Your task to perform on an android device: stop showing notifications on the lock screen Image 0: 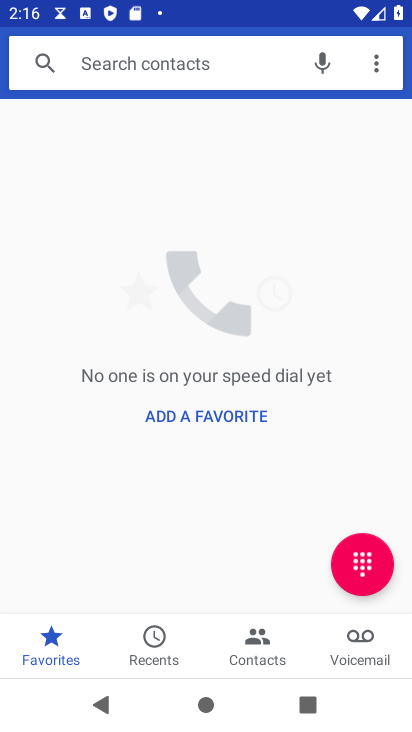
Step 0: press home button
Your task to perform on an android device: stop showing notifications on the lock screen Image 1: 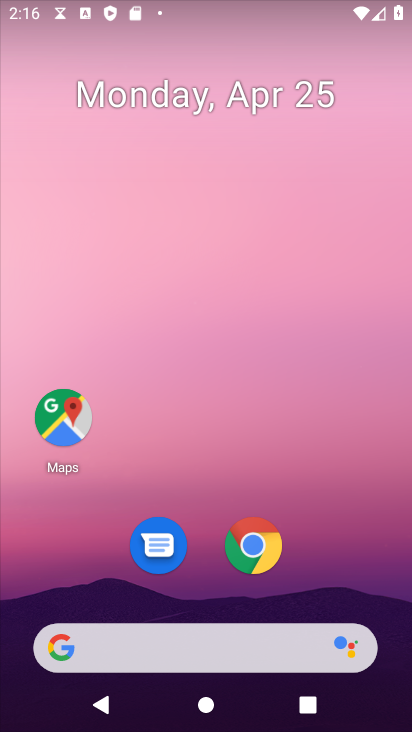
Step 1: drag from (260, 633) to (254, 202)
Your task to perform on an android device: stop showing notifications on the lock screen Image 2: 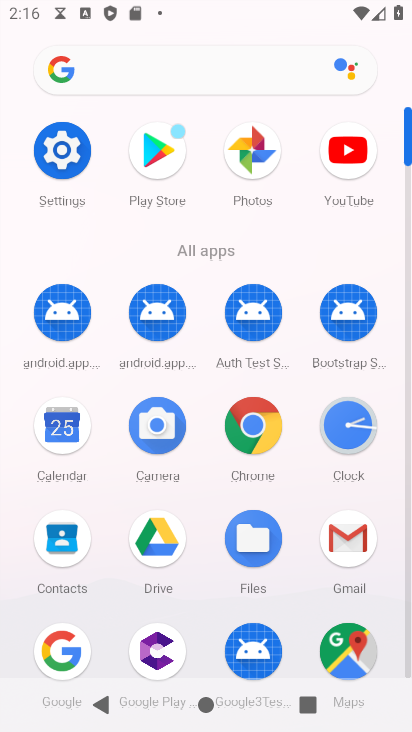
Step 2: click (67, 174)
Your task to perform on an android device: stop showing notifications on the lock screen Image 3: 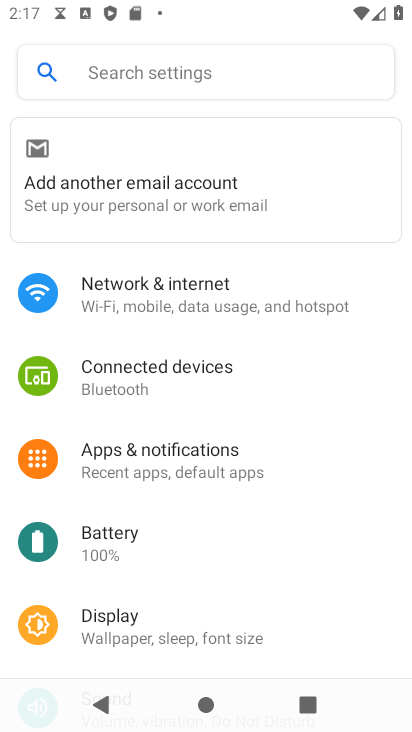
Step 3: click (188, 469)
Your task to perform on an android device: stop showing notifications on the lock screen Image 4: 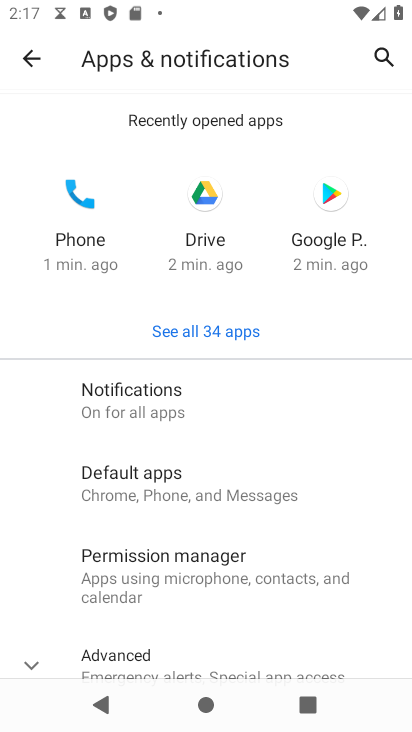
Step 4: click (127, 394)
Your task to perform on an android device: stop showing notifications on the lock screen Image 5: 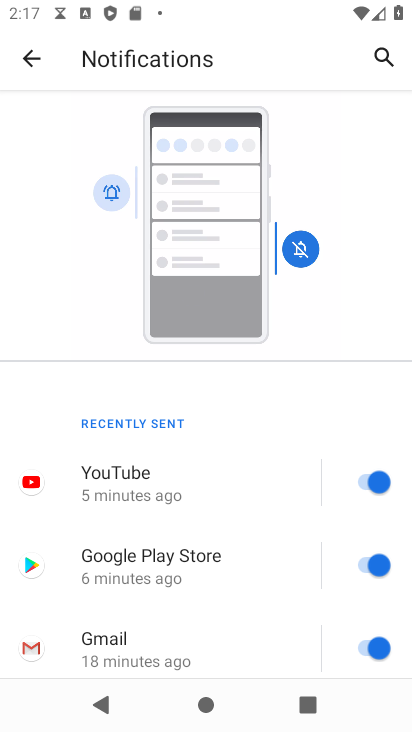
Step 5: drag from (83, 621) to (94, 117)
Your task to perform on an android device: stop showing notifications on the lock screen Image 6: 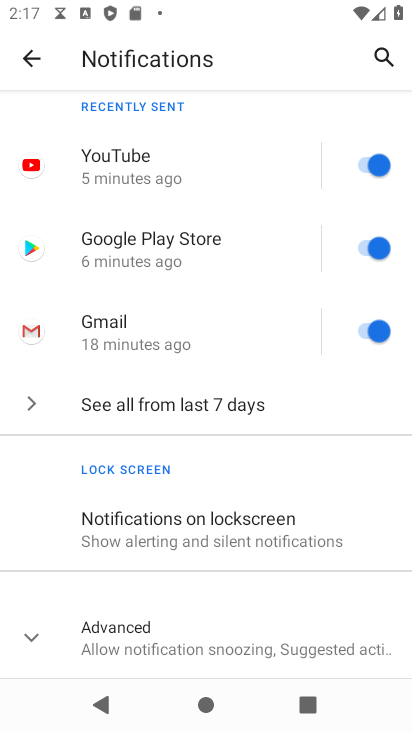
Step 6: click (109, 548)
Your task to perform on an android device: stop showing notifications on the lock screen Image 7: 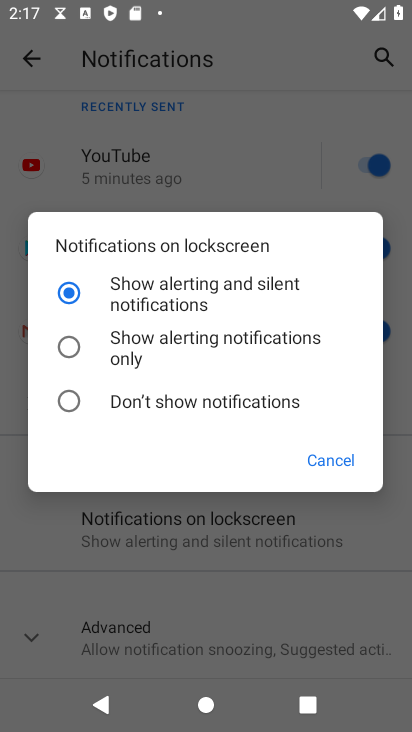
Step 7: click (112, 314)
Your task to perform on an android device: stop showing notifications on the lock screen Image 8: 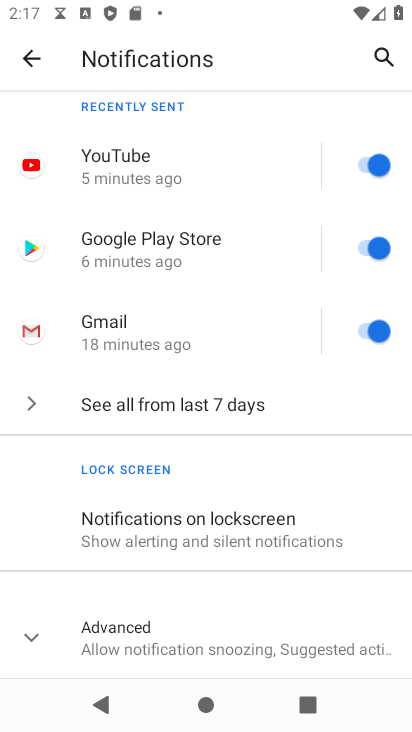
Step 8: task complete